Your task to perform on an android device: see tabs open on other devices in the chrome app Image 0: 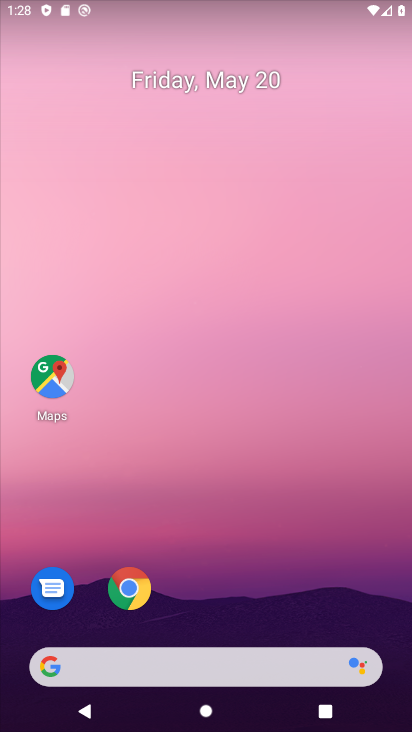
Step 0: click (129, 596)
Your task to perform on an android device: see tabs open on other devices in the chrome app Image 1: 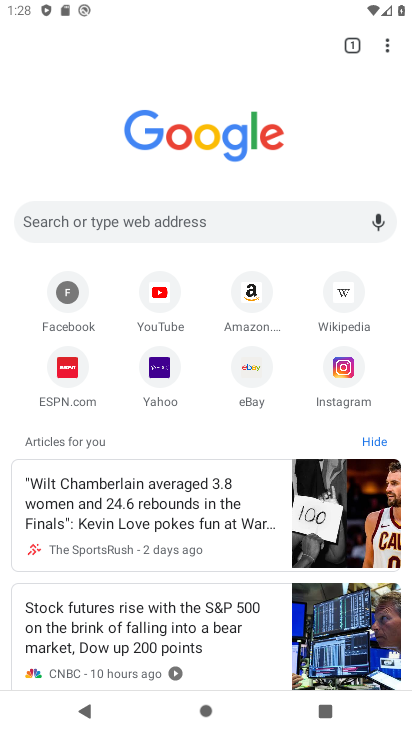
Step 1: task complete